Your task to perform on an android device: How much does the HisenseTV cost? Image 0: 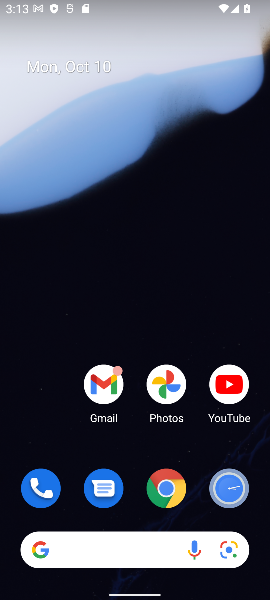
Step 0: drag from (130, 511) to (192, 91)
Your task to perform on an android device: How much does the HisenseTV cost? Image 1: 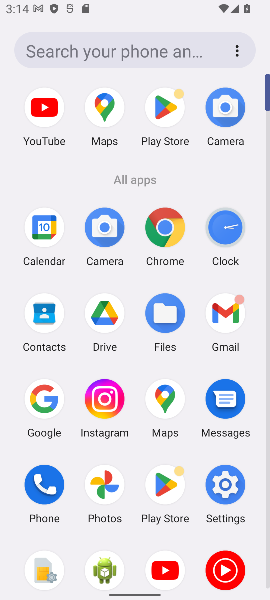
Step 1: click (134, 54)
Your task to perform on an android device: How much does the HisenseTV cost? Image 2: 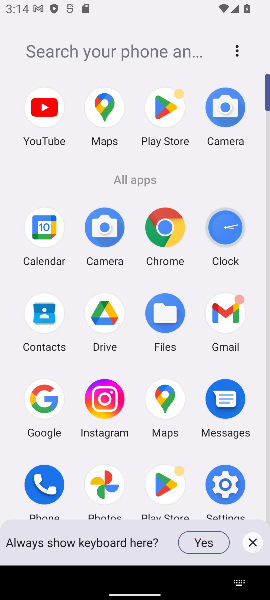
Step 2: drag from (142, 405) to (179, 154)
Your task to perform on an android device: How much does the HisenseTV cost? Image 3: 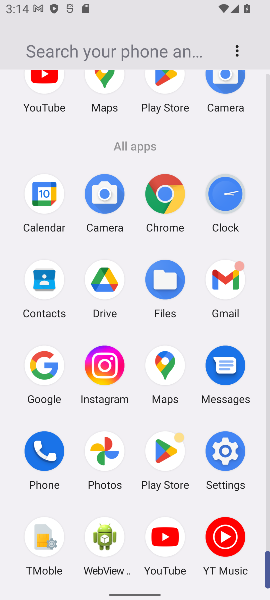
Step 3: click (41, 364)
Your task to perform on an android device: How much does the HisenseTV cost? Image 4: 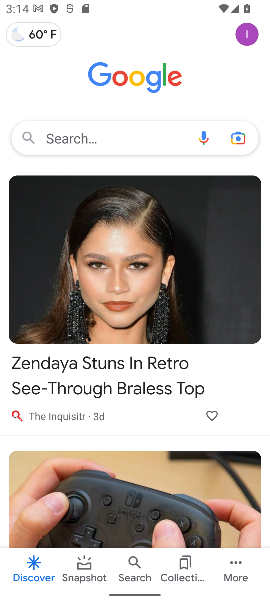
Step 4: click (97, 134)
Your task to perform on an android device: How much does the HisenseTV cost? Image 5: 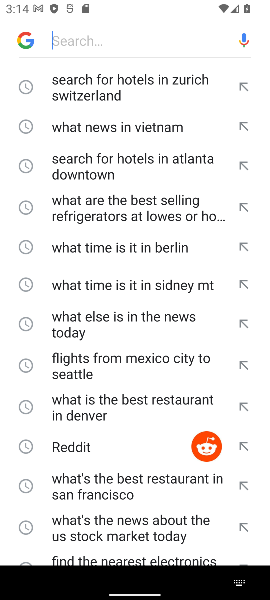
Step 5: click (102, 42)
Your task to perform on an android device: How much does the HisenseTV cost? Image 6: 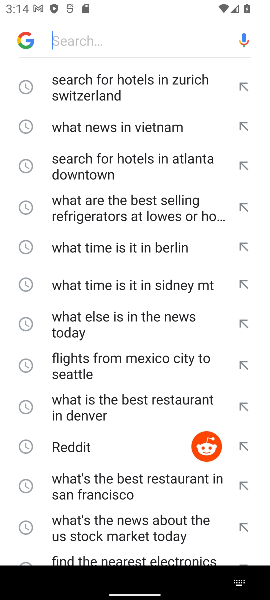
Step 6: type "How much does the HisenseTV cost"
Your task to perform on an android device: How much does the HisenseTV cost? Image 7: 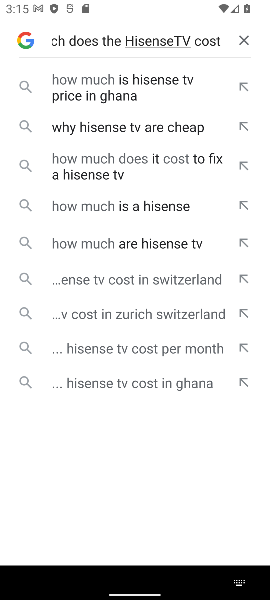
Step 7: click (118, 242)
Your task to perform on an android device: How much does the HisenseTV cost? Image 8: 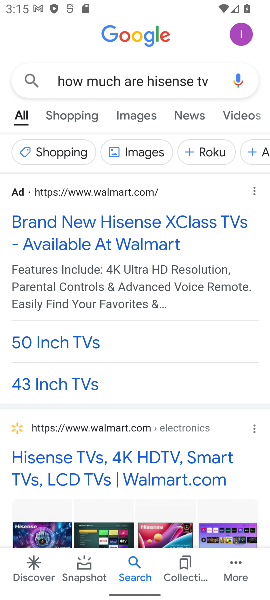
Step 8: task complete